Your task to perform on an android device: toggle show notifications on the lock screen Image 0: 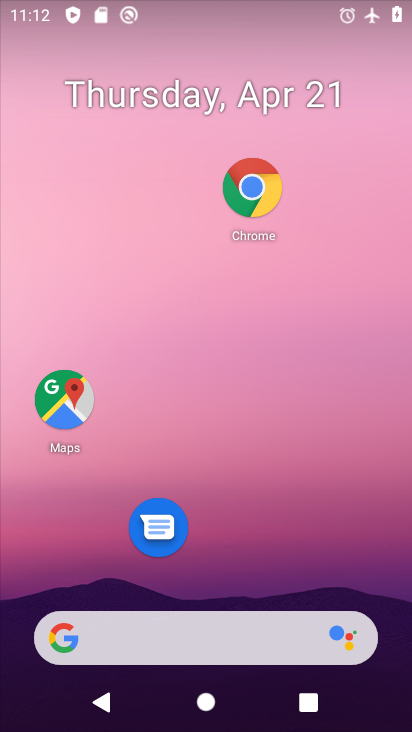
Step 0: drag from (238, 442) to (265, 89)
Your task to perform on an android device: toggle show notifications on the lock screen Image 1: 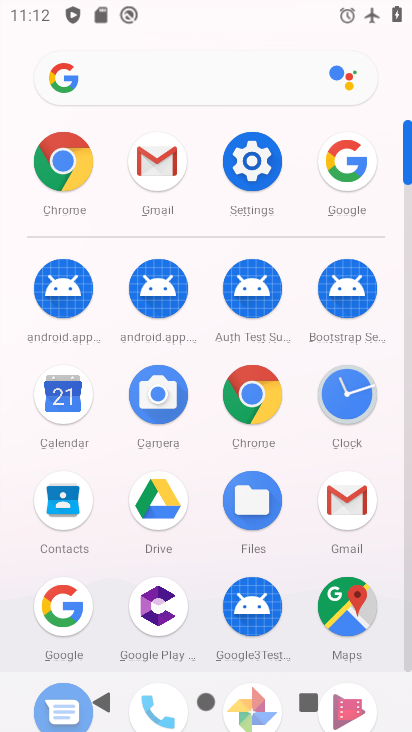
Step 1: click (260, 172)
Your task to perform on an android device: toggle show notifications on the lock screen Image 2: 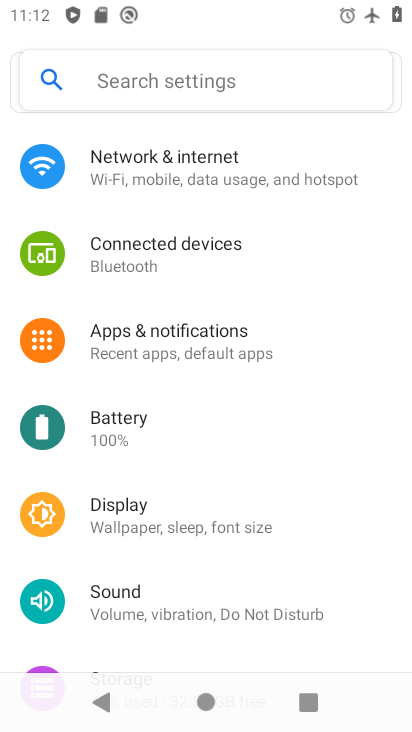
Step 2: drag from (168, 413) to (184, 184)
Your task to perform on an android device: toggle show notifications on the lock screen Image 3: 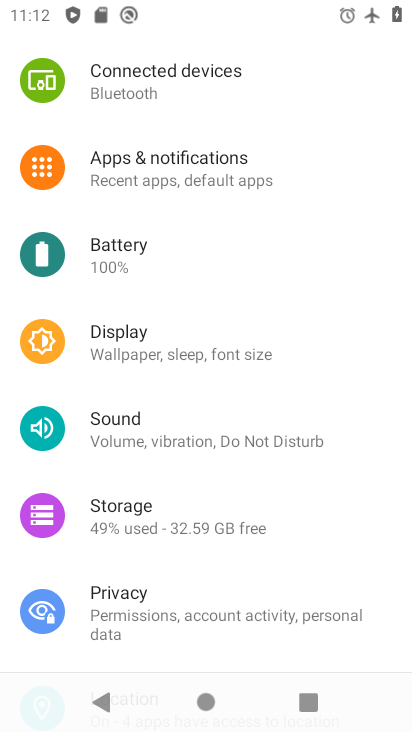
Step 3: drag from (190, 468) to (191, 201)
Your task to perform on an android device: toggle show notifications on the lock screen Image 4: 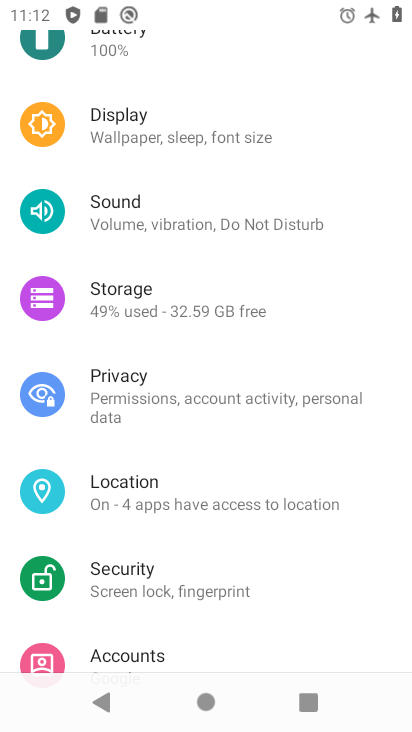
Step 4: drag from (181, 494) to (213, 225)
Your task to perform on an android device: toggle show notifications on the lock screen Image 5: 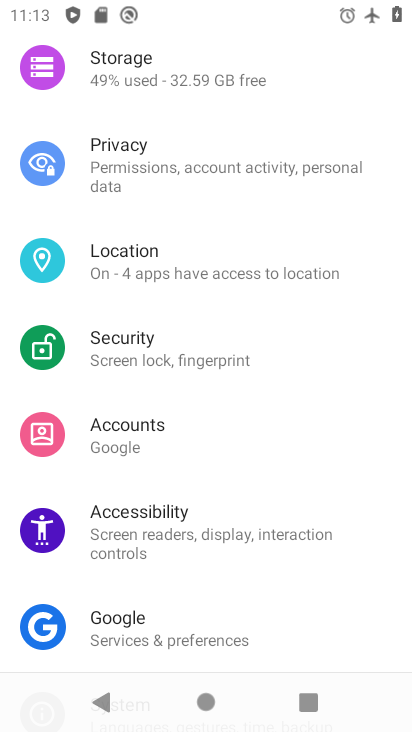
Step 5: drag from (176, 508) to (184, 289)
Your task to perform on an android device: toggle show notifications on the lock screen Image 6: 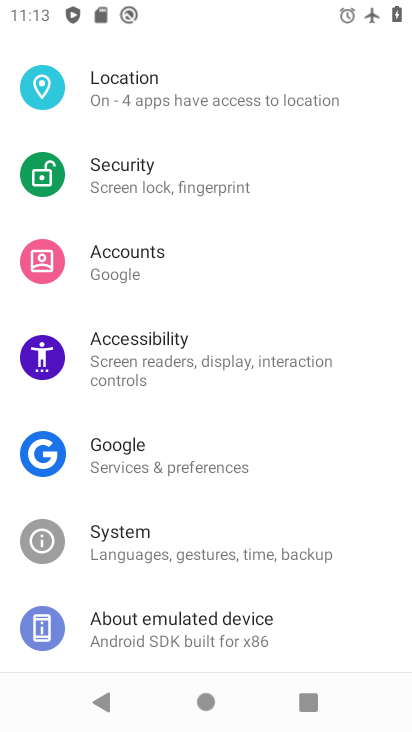
Step 6: drag from (179, 183) to (185, 532)
Your task to perform on an android device: toggle show notifications on the lock screen Image 7: 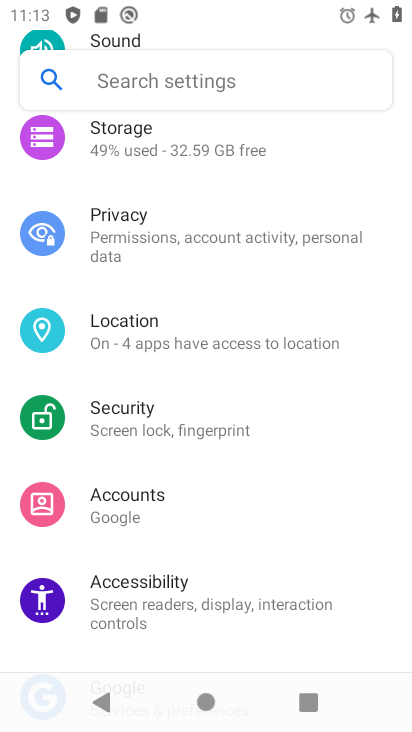
Step 7: drag from (202, 407) to (202, 568)
Your task to perform on an android device: toggle show notifications on the lock screen Image 8: 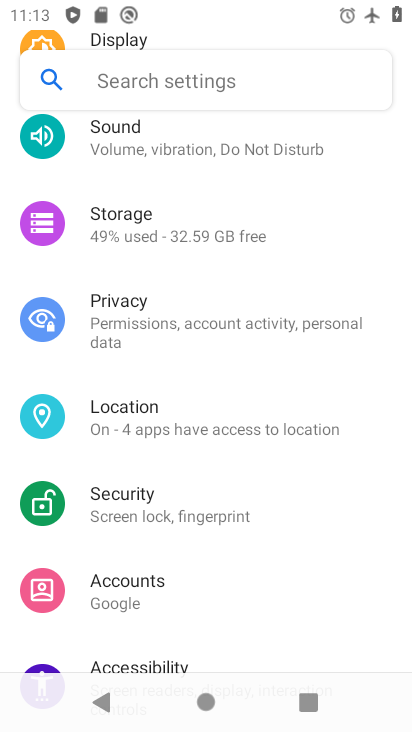
Step 8: drag from (225, 342) to (221, 623)
Your task to perform on an android device: toggle show notifications on the lock screen Image 9: 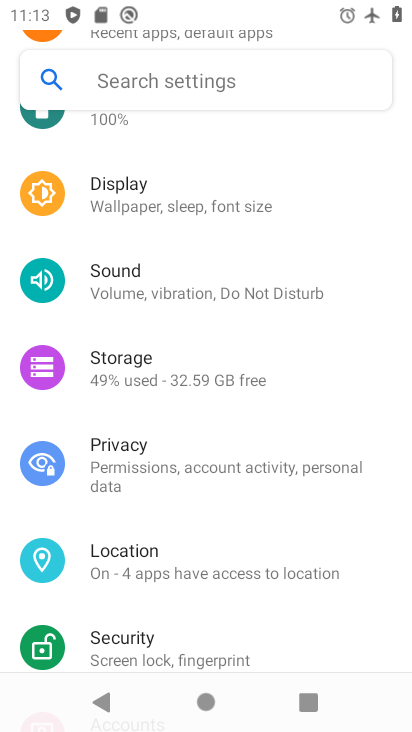
Step 9: drag from (245, 397) to (230, 640)
Your task to perform on an android device: toggle show notifications on the lock screen Image 10: 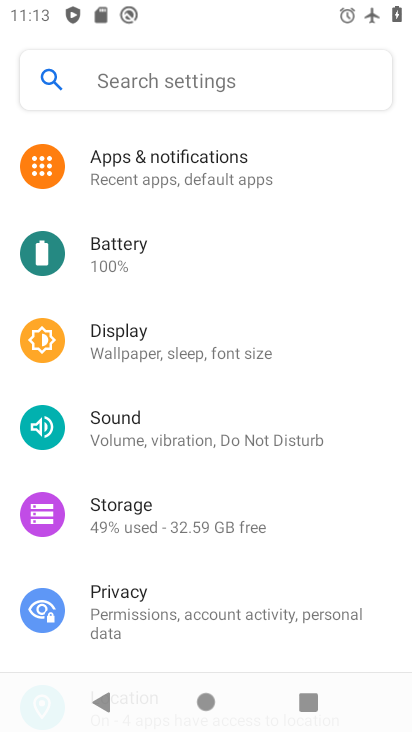
Step 10: click (243, 161)
Your task to perform on an android device: toggle show notifications on the lock screen Image 11: 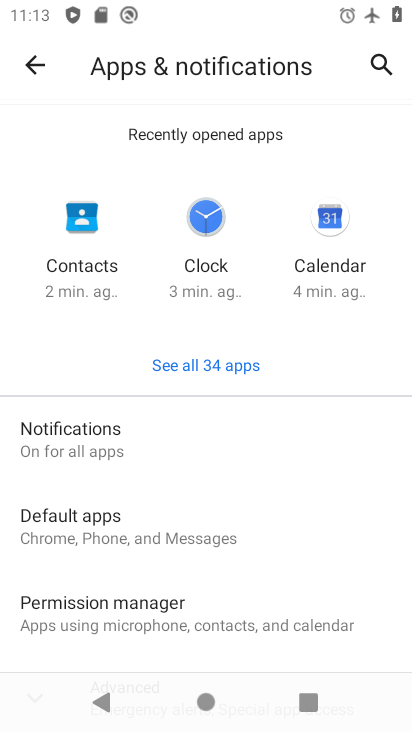
Step 11: click (222, 448)
Your task to perform on an android device: toggle show notifications on the lock screen Image 12: 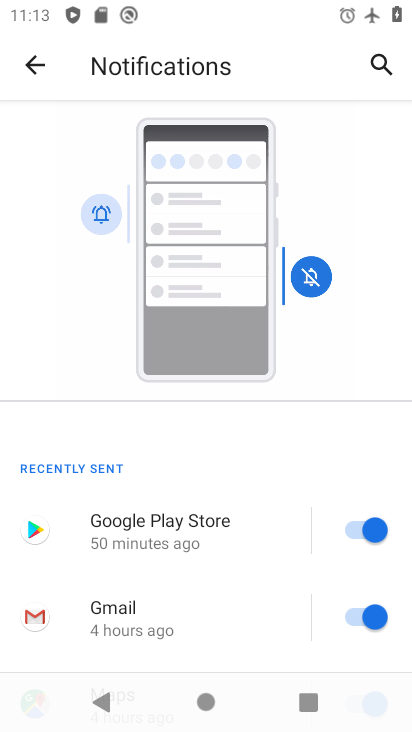
Step 12: drag from (239, 259) to (255, 30)
Your task to perform on an android device: toggle show notifications on the lock screen Image 13: 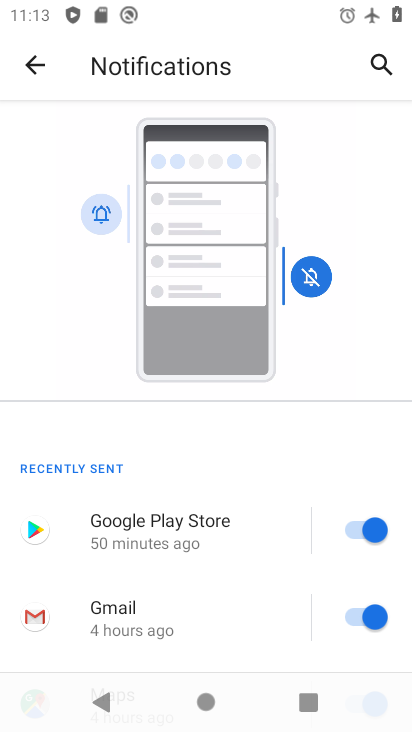
Step 13: drag from (206, 456) to (221, 7)
Your task to perform on an android device: toggle show notifications on the lock screen Image 14: 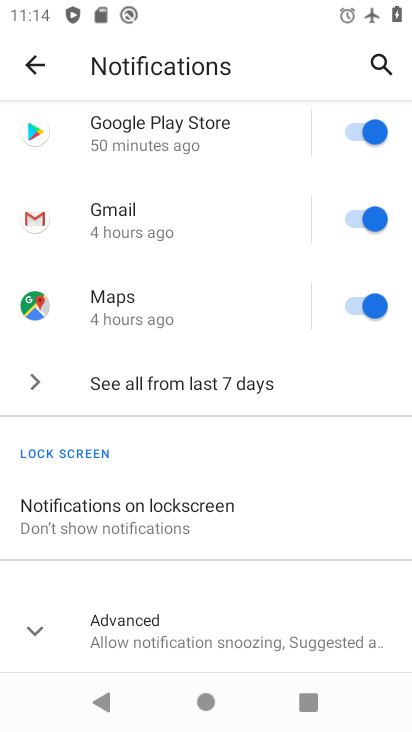
Step 14: click (141, 518)
Your task to perform on an android device: toggle show notifications on the lock screen Image 15: 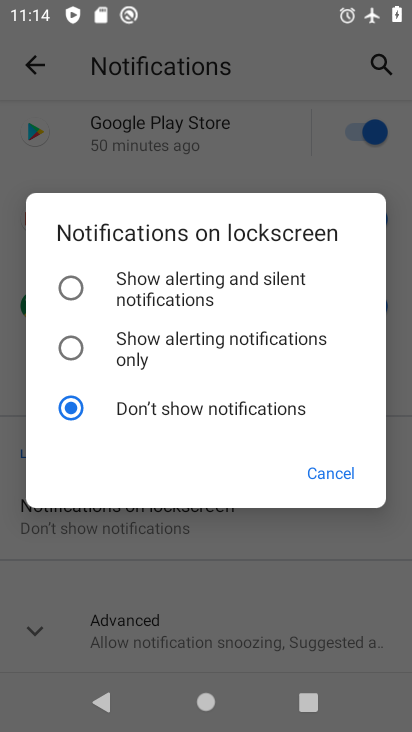
Step 15: click (70, 290)
Your task to perform on an android device: toggle show notifications on the lock screen Image 16: 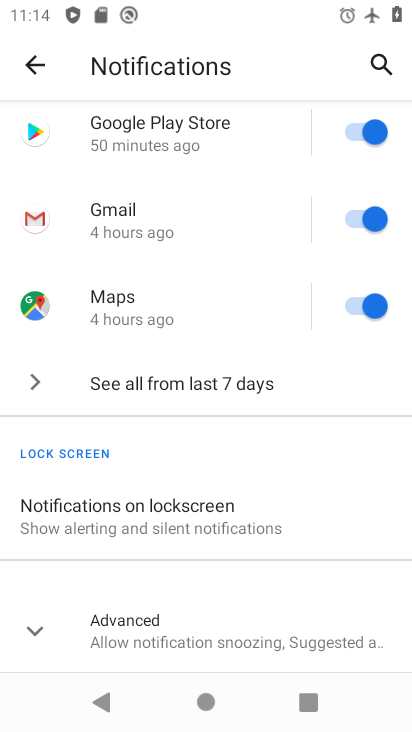
Step 16: task complete